Your task to perform on an android device: toggle notifications settings in the gmail app Image 0: 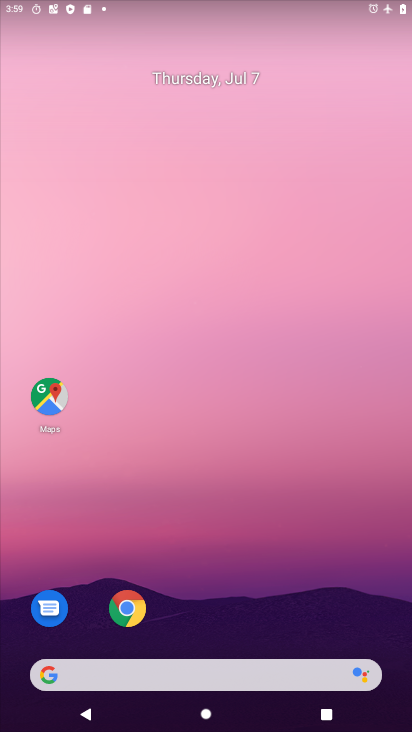
Step 0: drag from (249, 721) to (230, 166)
Your task to perform on an android device: toggle notifications settings in the gmail app Image 1: 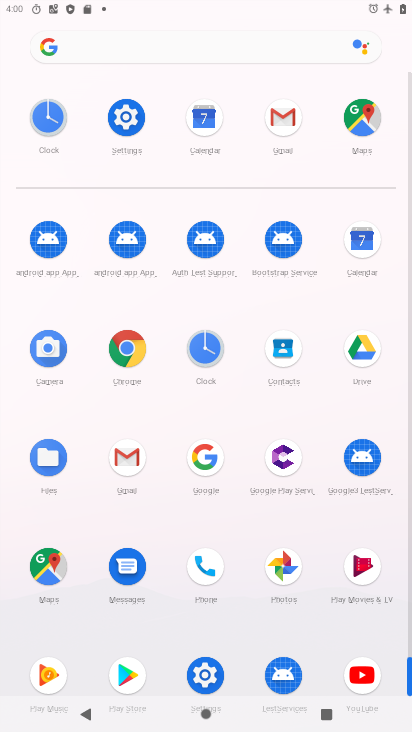
Step 1: click (129, 460)
Your task to perform on an android device: toggle notifications settings in the gmail app Image 2: 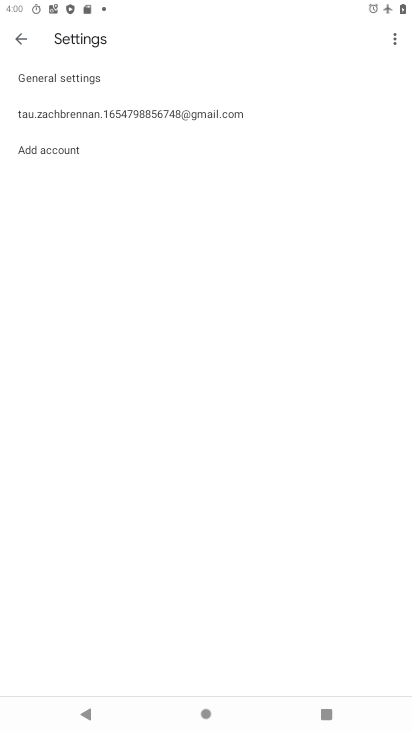
Step 2: click (19, 35)
Your task to perform on an android device: toggle notifications settings in the gmail app Image 3: 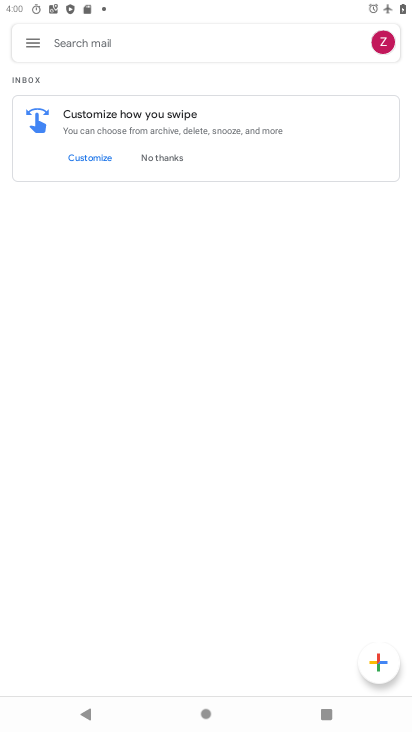
Step 3: click (22, 42)
Your task to perform on an android device: toggle notifications settings in the gmail app Image 4: 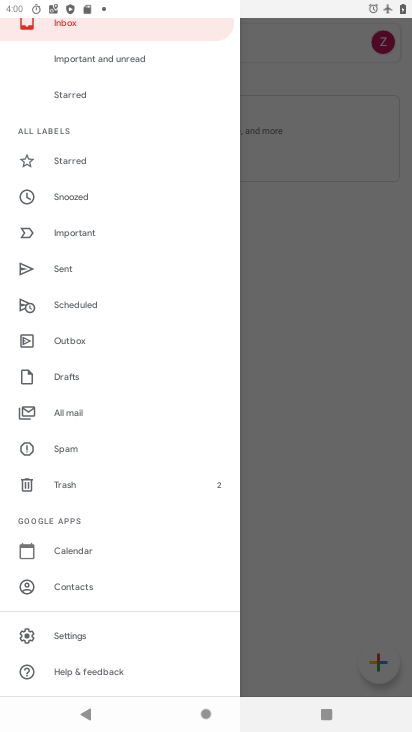
Step 4: click (81, 631)
Your task to perform on an android device: toggle notifications settings in the gmail app Image 5: 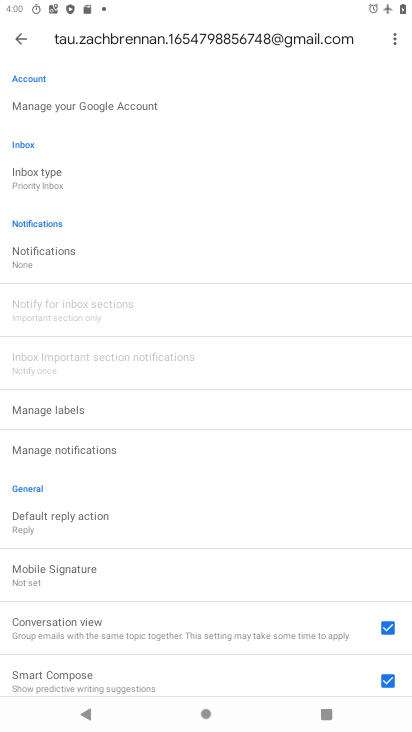
Step 5: click (28, 254)
Your task to perform on an android device: toggle notifications settings in the gmail app Image 6: 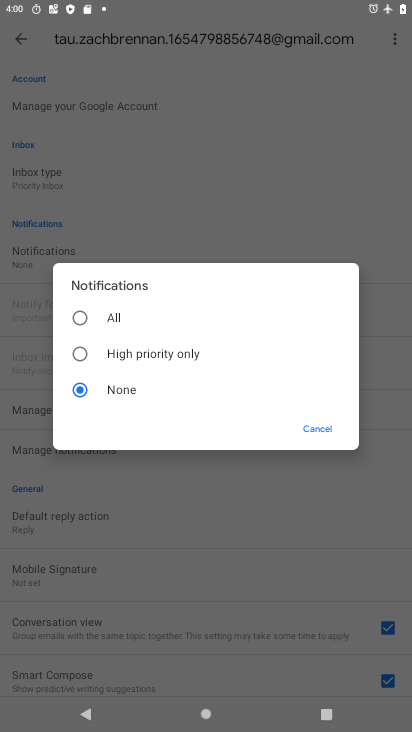
Step 6: click (83, 313)
Your task to perform on an android device: toggle notifications settings in the gmail app Image 7: 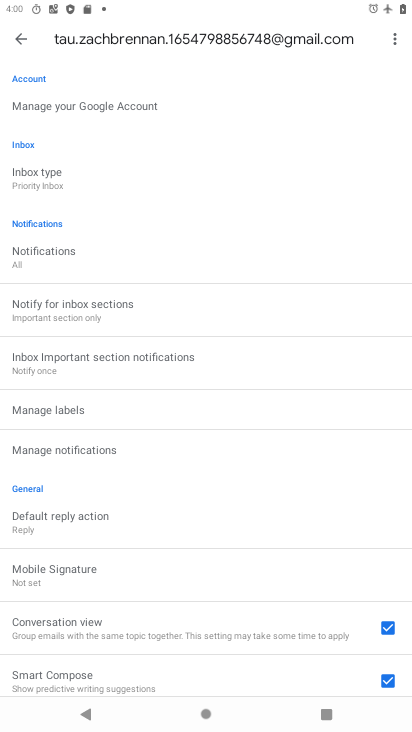
Step 7: task complete